Your task to perform on an android device: Open the calendar app, open the side menu, and click the "Day" option Image 0: 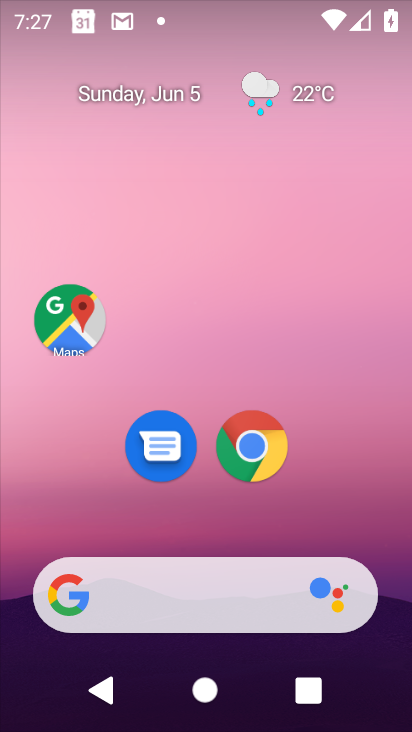
Step 0: drag from (226, 541) to (272, 197)
Your task to perform on an android device: Open the calendar app, open the side menu, and click the "Day" option Image 1: 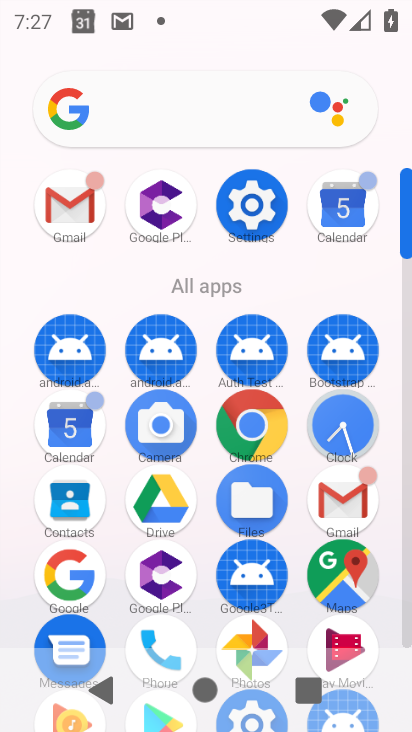
Step 1: click (69, 423)
Your task to perform on an android device: Open the calendar app, open the side menu, and click the "Day" option Image 2: 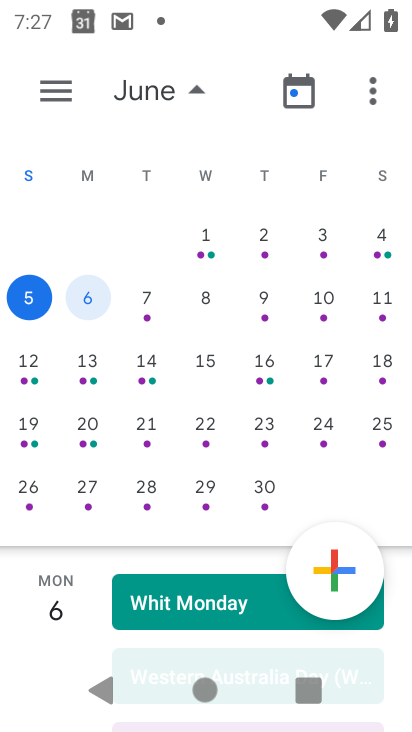
Step 2: click (53, 87)
Your task to perform on an android device: Open the calendar app, open the side menu, and click the "Day" option Image 3: 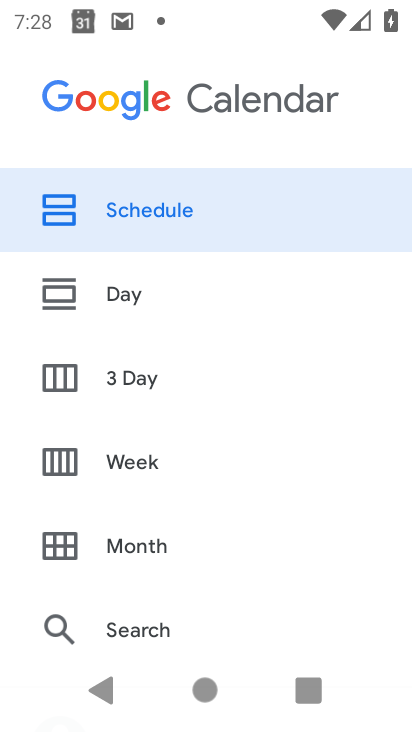
Step 3: click (141, 308)
Your task to perform on an android device: Open the calendar app, open the side menu, and click the "Day" option Image 4: 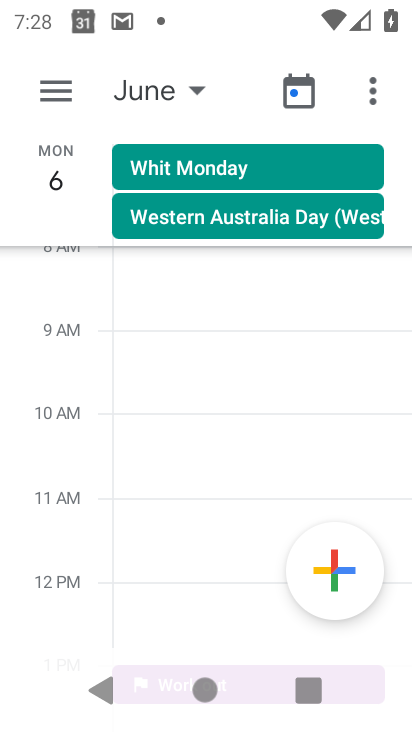
Step 4: task complete